Your task to perform on an android device: Open Google Chrome and click the shortcut for Amazon.com Image 0: 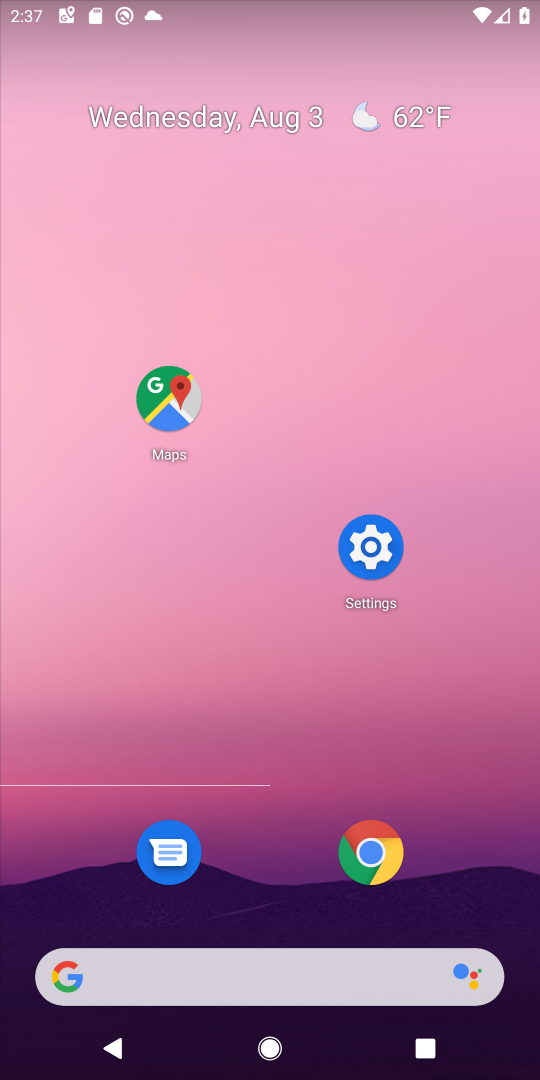
Step 0: press home button
Your task to perform on an android device: Open Google Chrome and click the shortcut for Amazon.com Image 1: 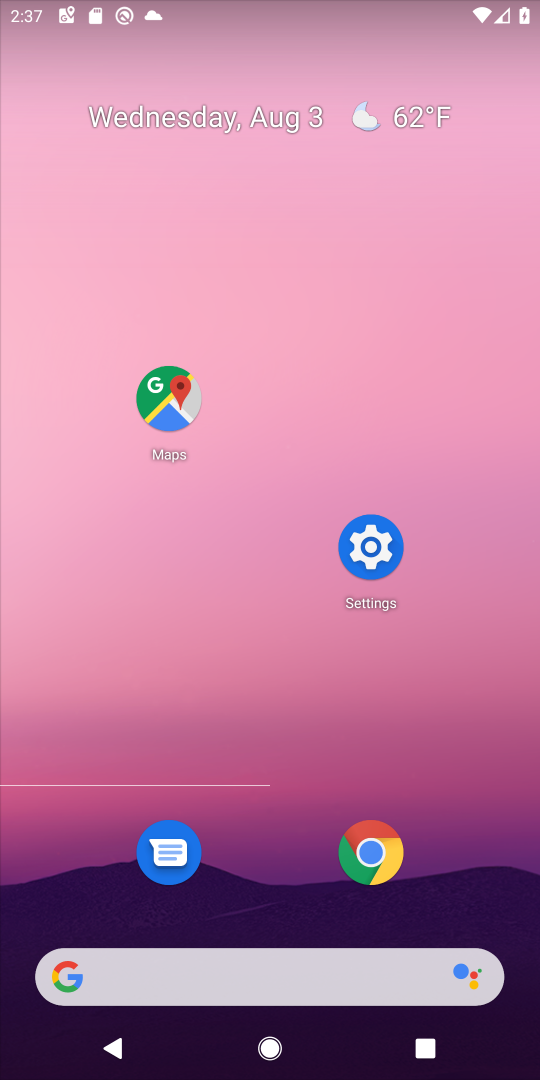
Step 1: click (379, 857)
Your task to perform on an android device: Open Google Chrome and click the shortcut for Amazon.com Image 2: 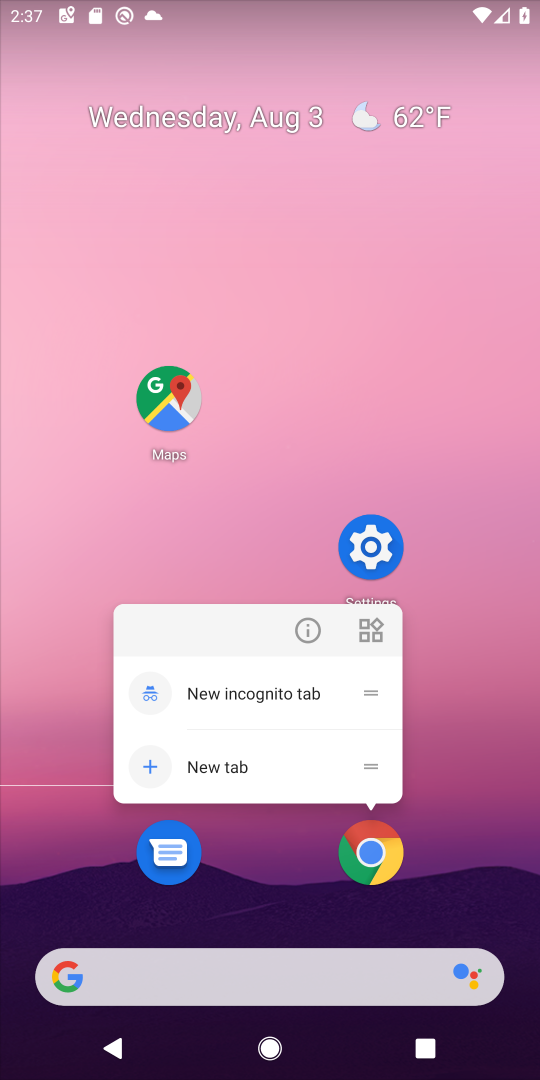
Step 2: click (379, 857)
Your task to perform on an android device: Open Google Chrome and click the shortcut for Amazon.com Image 3: 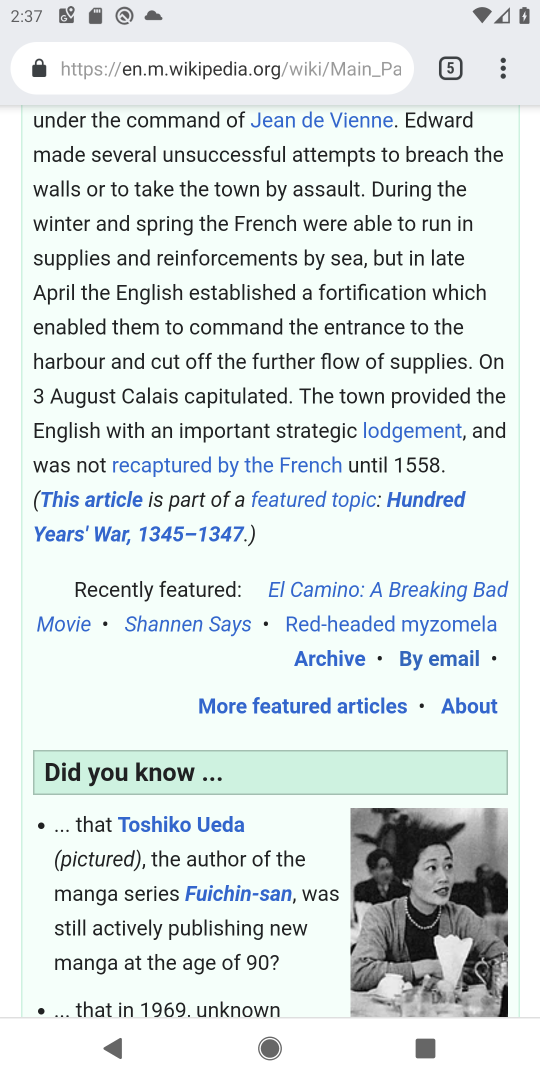
Step 3: drag from (505, 71) to (239, 206)
Your task to perform on an android device: Open Google Chrome and click the shortcut for Amazon.com Image 4: 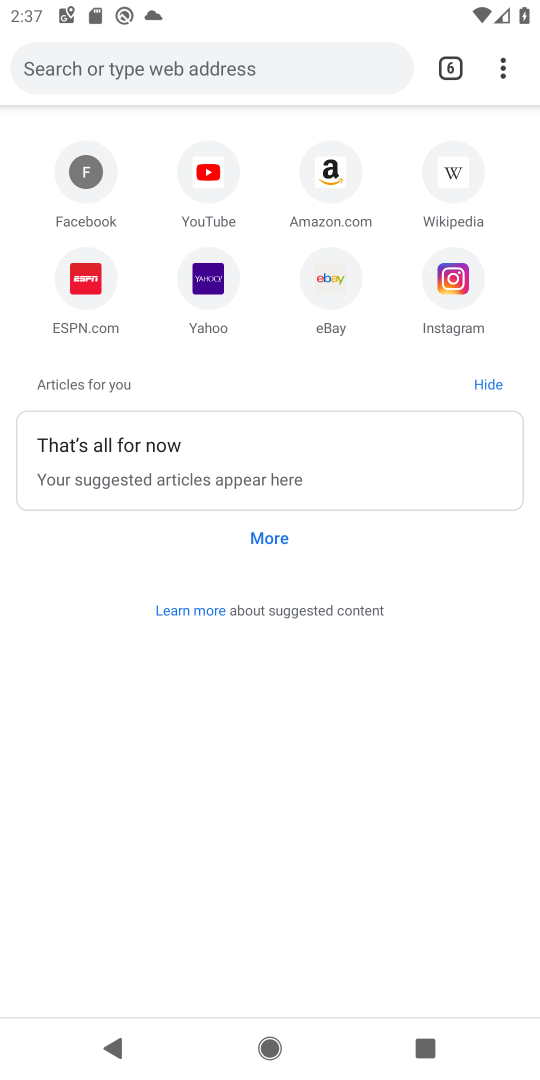
Step 4: click (329, 174)
Your task to perform on an android device: Open Google Chrome and click the shortcut for Amazon.com Image 5: 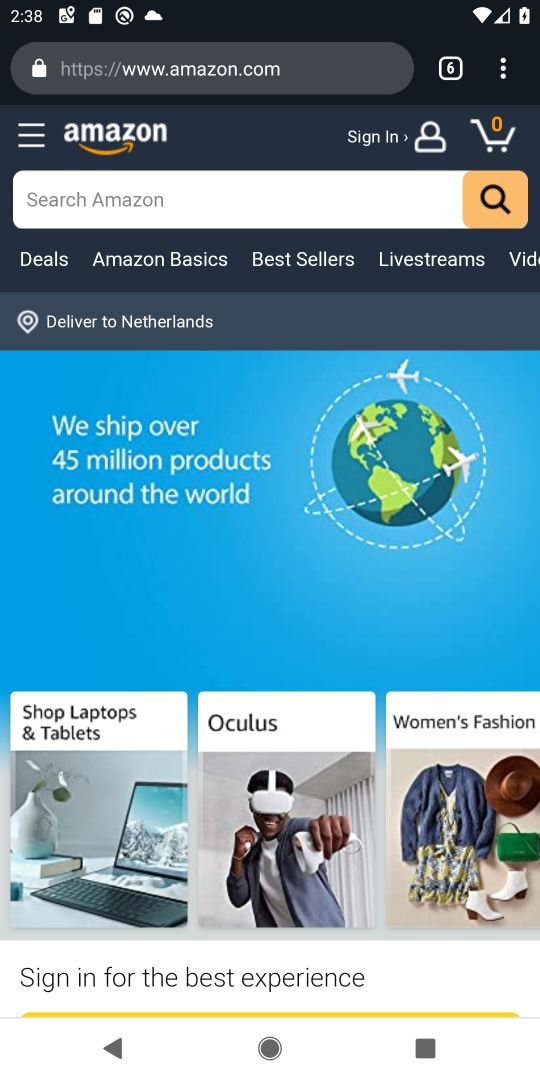
Step 5: task complete